Your task to perform on an android device: Show me productivity apps on the Play Store Image 0: 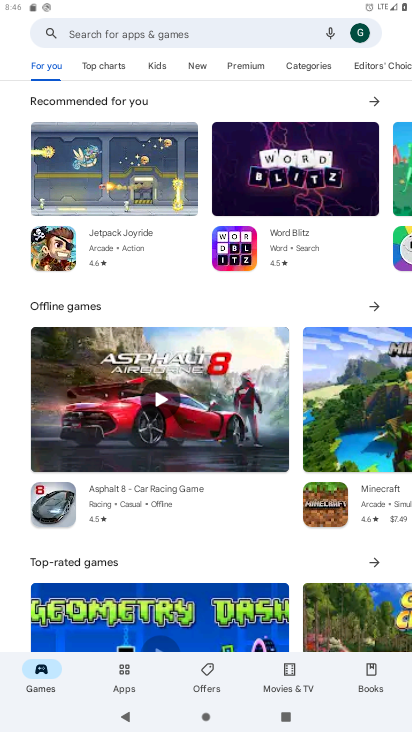
Step 0: press home button
Your task to perform on an android device: Show me productivity apps on the Play Store Image 1: 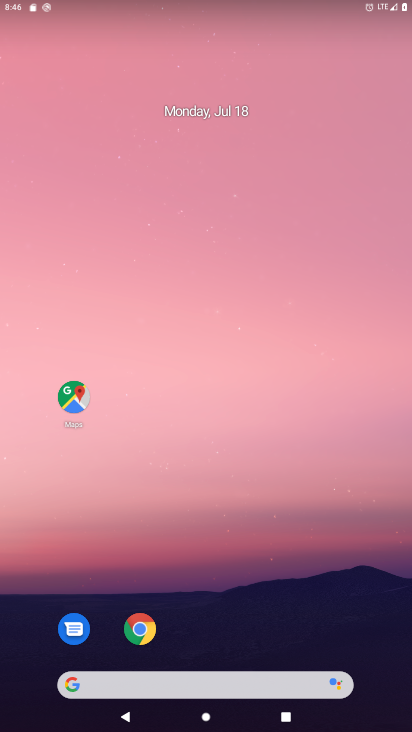
Step 1: drag from (232, 654) to (232, 425)
Your task to perform on an android device: Show me productivity apps on the Play Store Image 2: 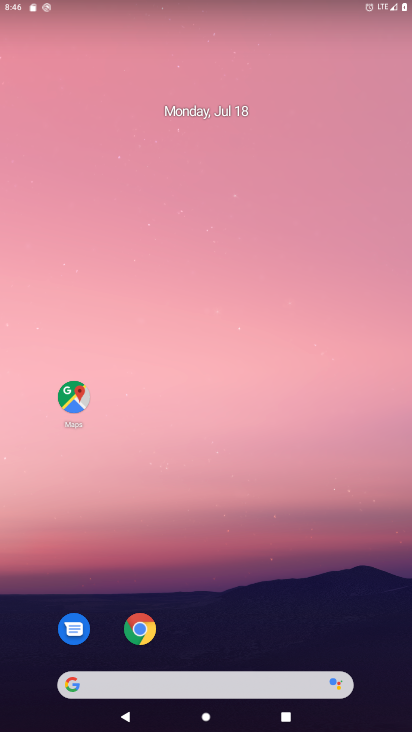
Step 2: drag from (192, 652) to (221, 176)
Your task to perform on an android device: Show me productivity apps on the Play Store Image 3: 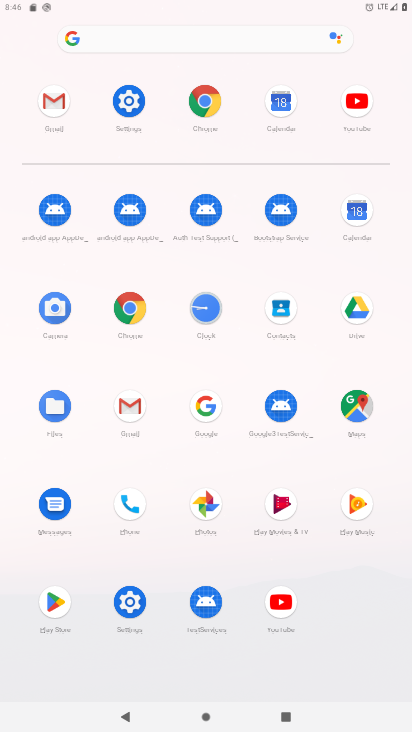
Step 3: click (42, 606)
Your task to perform on an android device: Show me productivity apps on the Play Store Image 4: 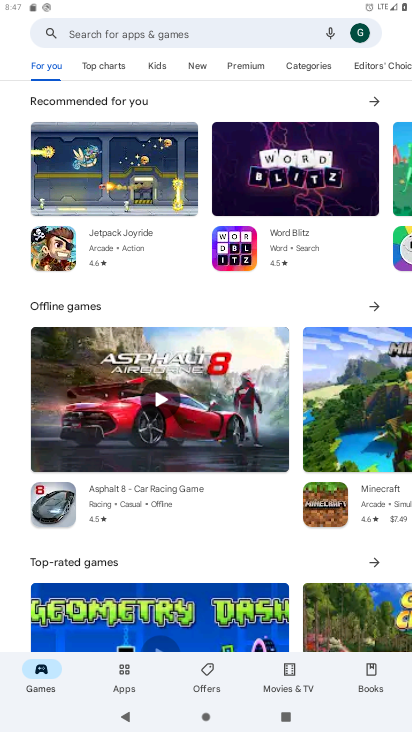
Step 4: click (128, 676)
Your task to perform on an android device: Show me productivity apps on the Play Store Image 5: 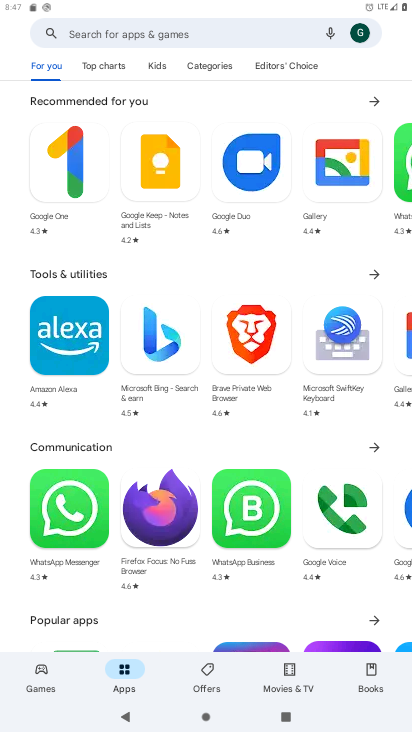
Step 5: click (216, 59)
Your task to perform on an android device: Show me productivity apps on the Play Store Image 6: 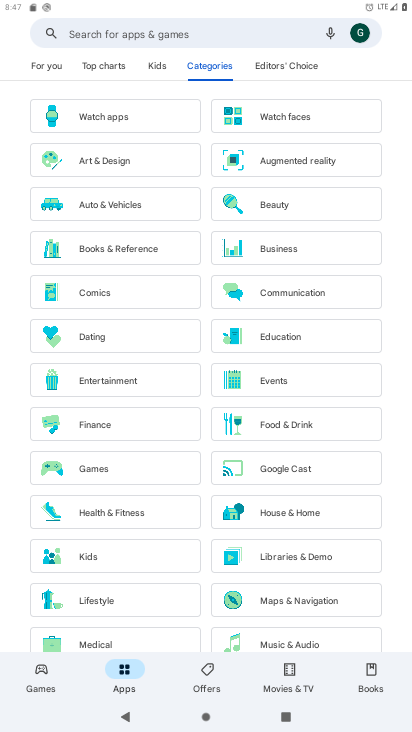
Step 6: drag from (151, 519) to (179, 355)
Your task to perform on an android device: Show me productivity apps on the Play Store Image 7: 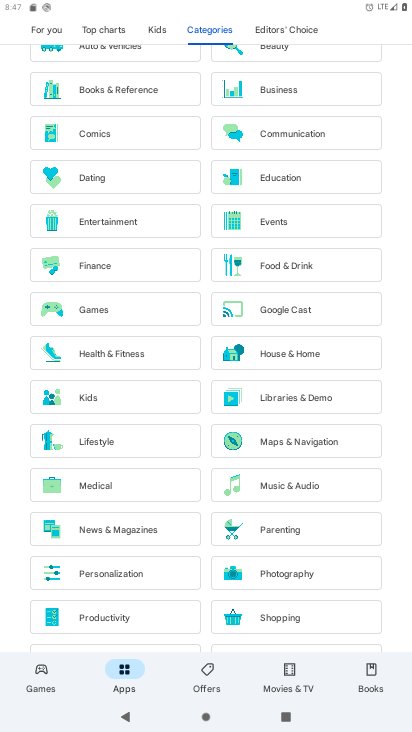
Step 7: click (119, 616)
Your task to perform on an android device: Show me productivity apps on the Play Store Image 8: 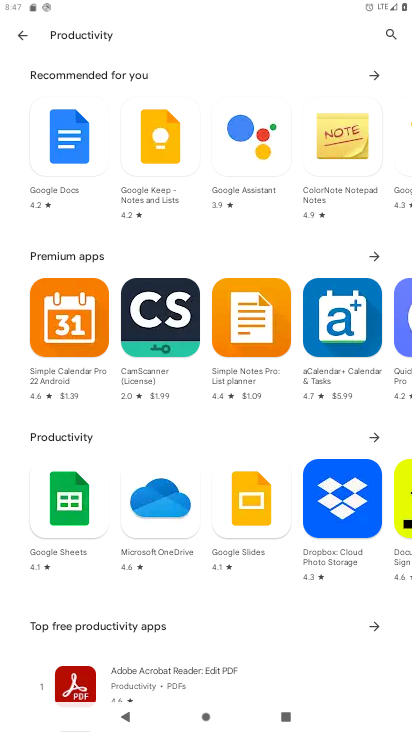
Step 8: task complete